Your task to perform on an android device: Open Chrome and go to the settings page Image 0: 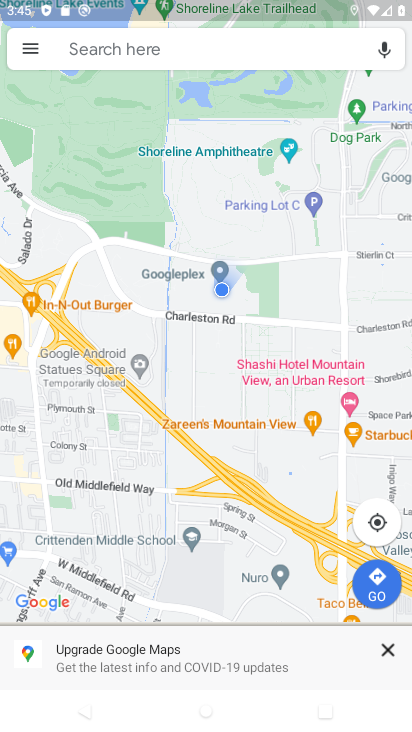
Step 0: press home button
Your task to perform on an android device: Open Chrome and go to the settings page Image 1: 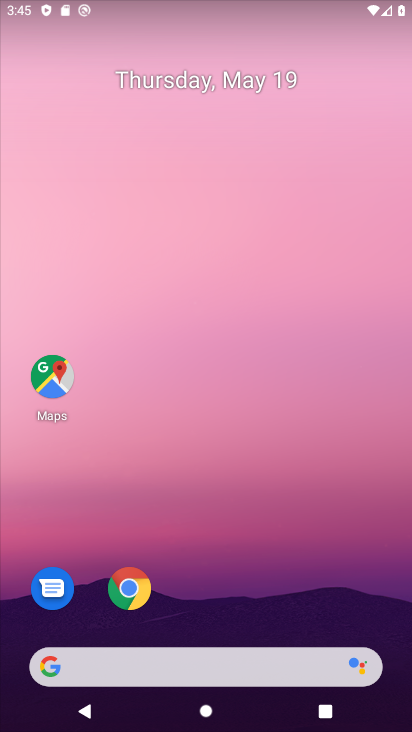
Step 1: click (139, 592)
Your task to perform on an android device: Open Chrome and go to the settings page Image 2: 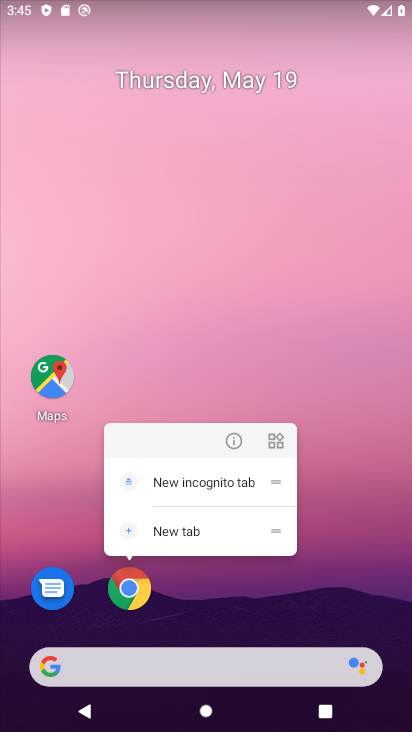
Step 2: click (137, 602)
Your task to perform on an android device: Open Chrome and go to the settings page Image 3: 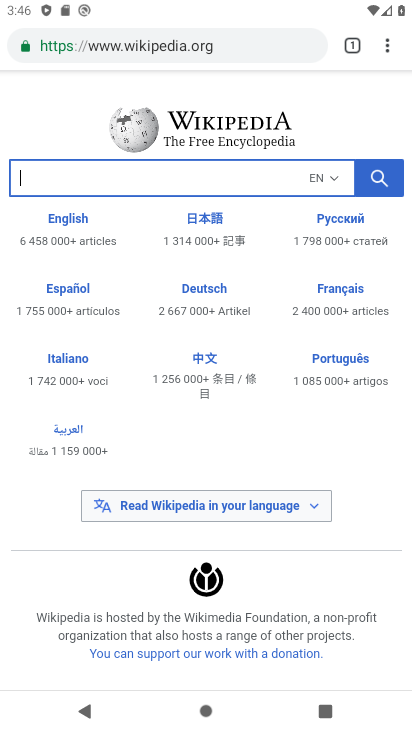
Step 3: click (391, 53)
Your task to perform on an android device: Open Chrome and go to the settings page Image 4: 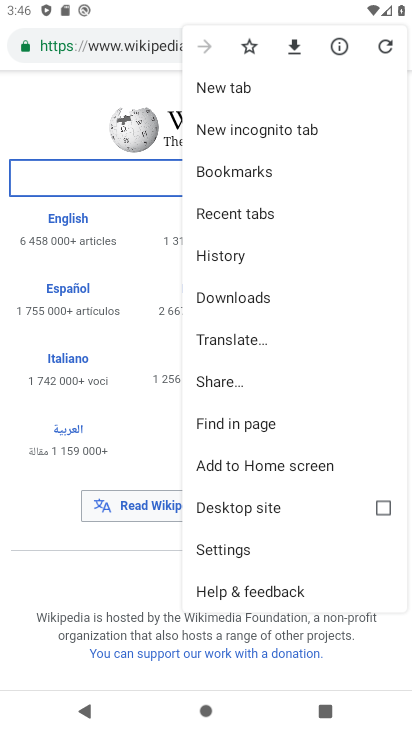
Step 4: click (220, 552)
Your task to perform on an android device: Open Chrome and go to the settings page Image 5: 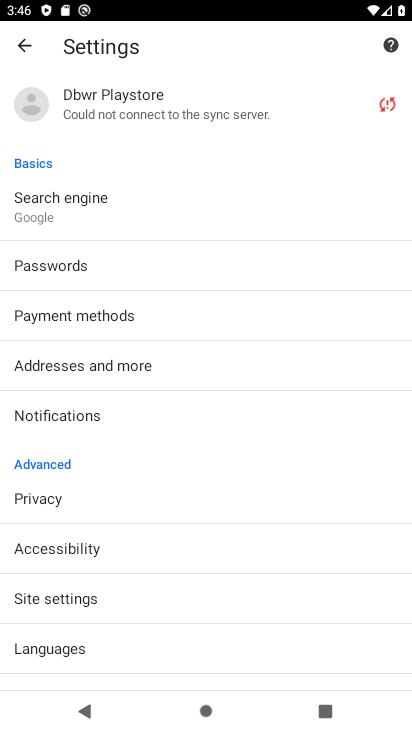
Step 5: task complete